Your task to perform on an android device: Open battery settings Image 0: 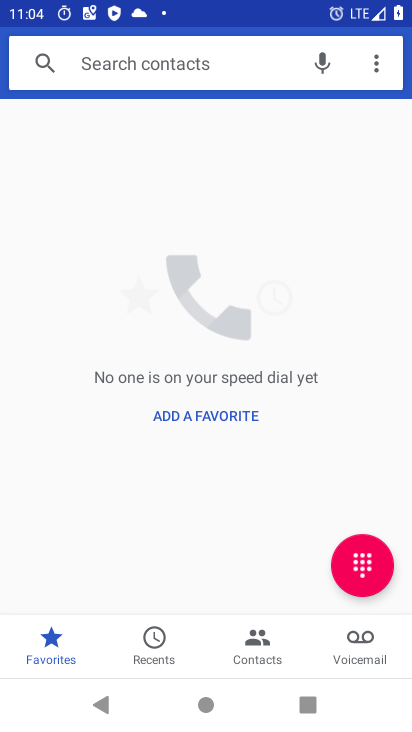
Step 0: press home button
Your task to perform on an android device: Open battery settings Image 1: 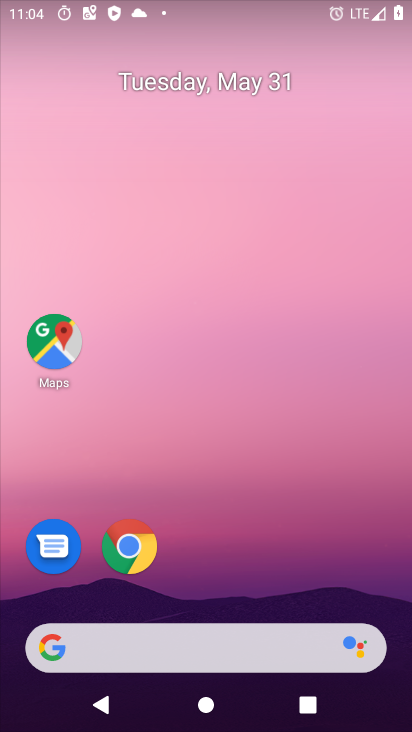
Step 1: drag from (245, 456) to (216, 102)
Your task to perform on an android device: Open battery settings Image 2: 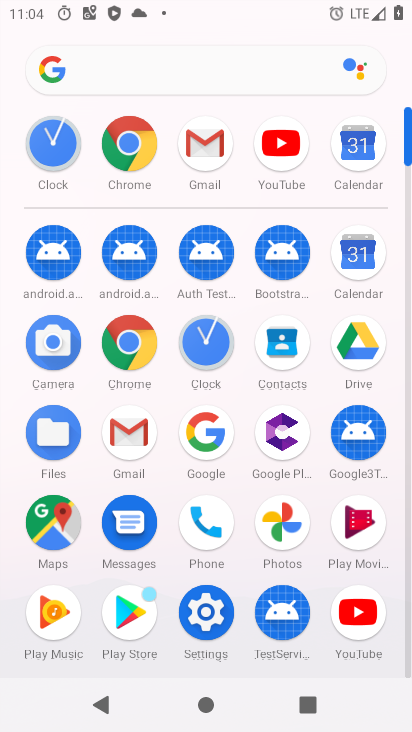
Step 2: click (201, 596)
Your task to perform on an android device: Open battery settings Image 3: 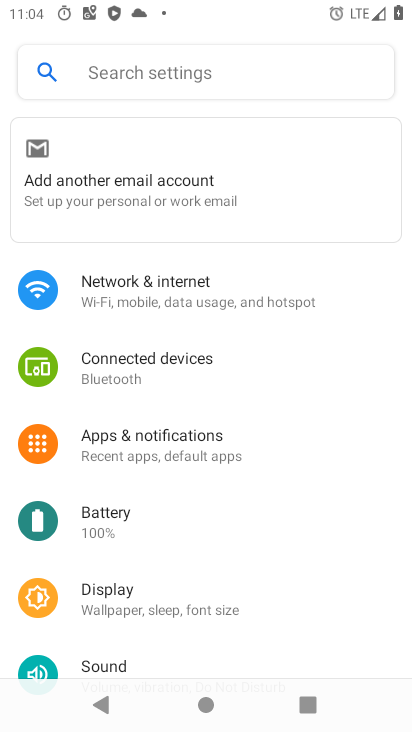
Step 3: click (198, 531)
Your task to perform on an android device: Open battery settings Image 4: 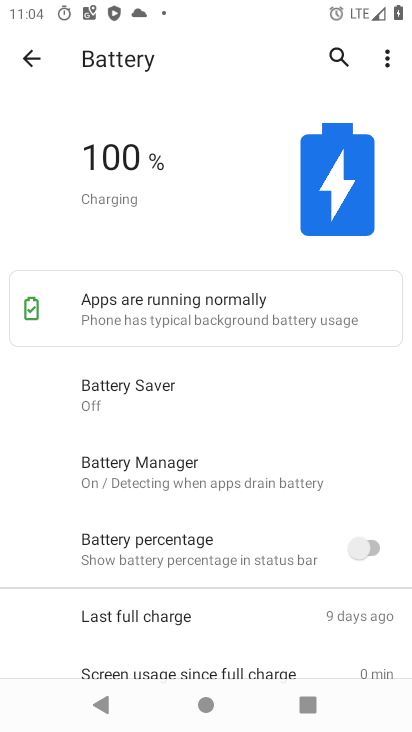
Step 4: task complete